Your task to perform on an android device: turn notification dots on Image 0: 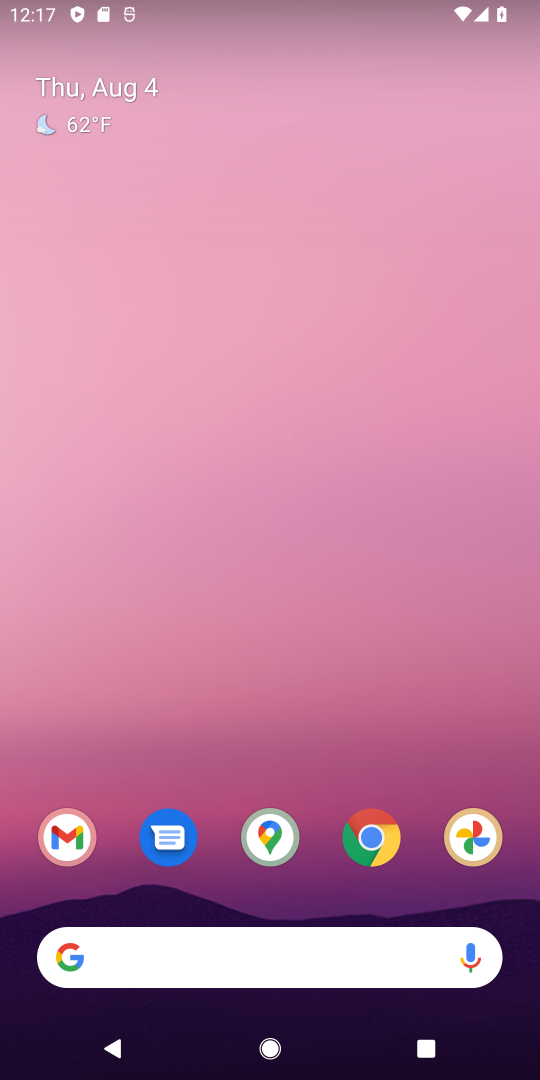
Step 0: drag from (282, 755) to (261, 19)
Your task to perform on an android device: turn notification dots on Image 1: 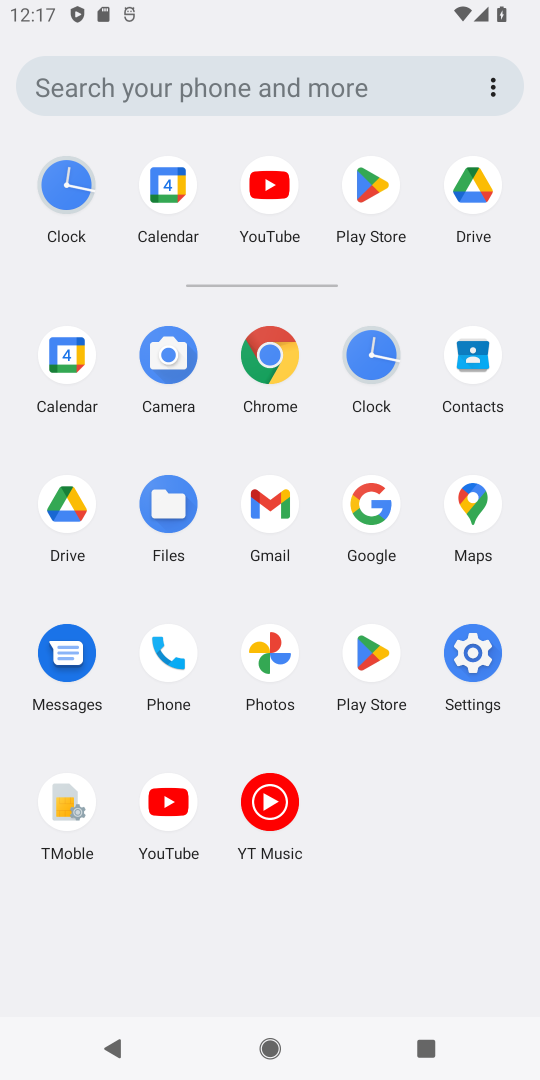
Step 1: click (480, 659)
Your task to perform on an android device: turn notification dots on Image 2: 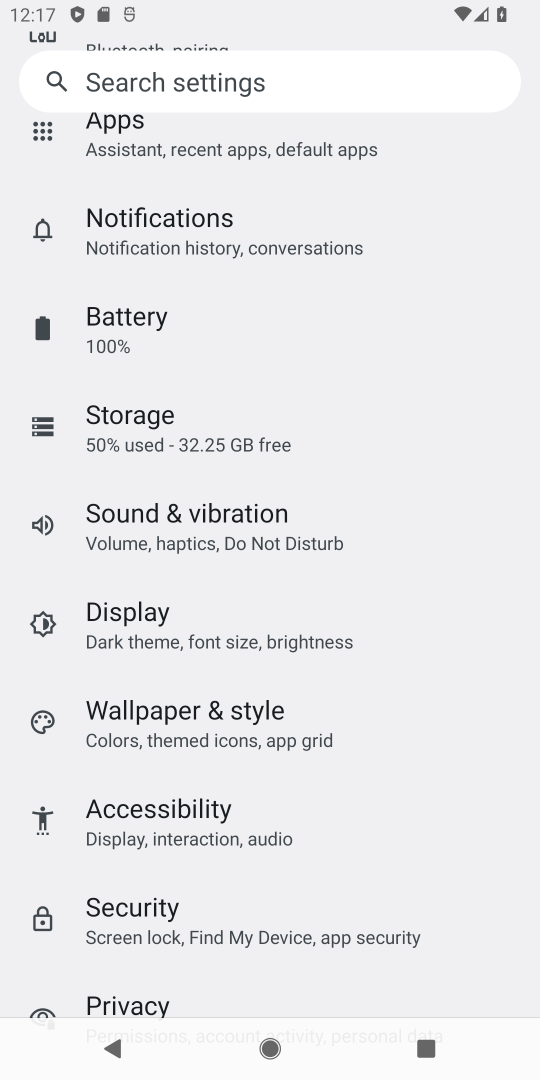
Step 2: click (239, 205)
Your task to perform on an android device: turn notification dots on Image 3: 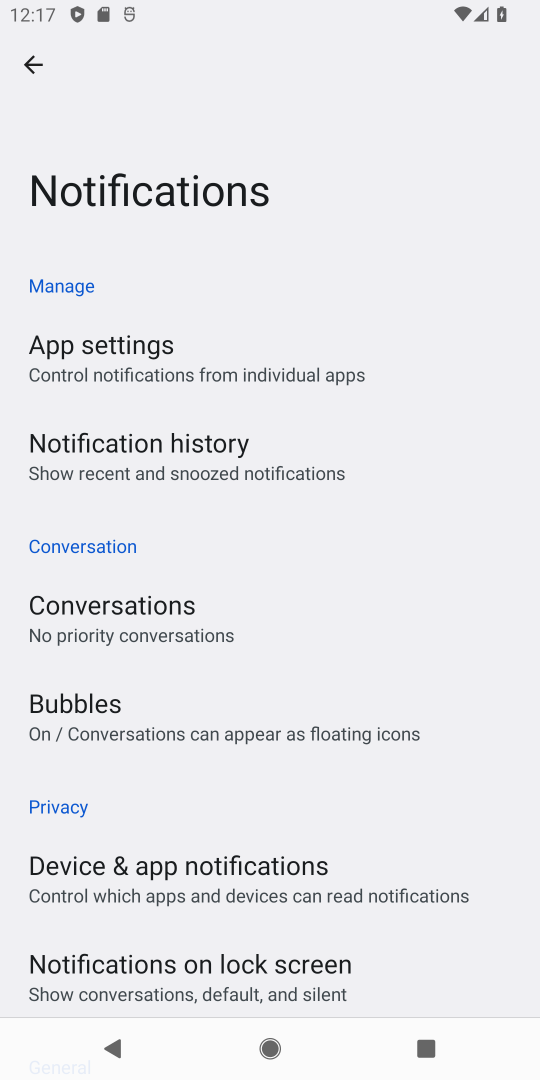
Step 3: drag from (200, 870) to (266, 513)
Your task to perform on an android device: turn notification dots on Image 4: 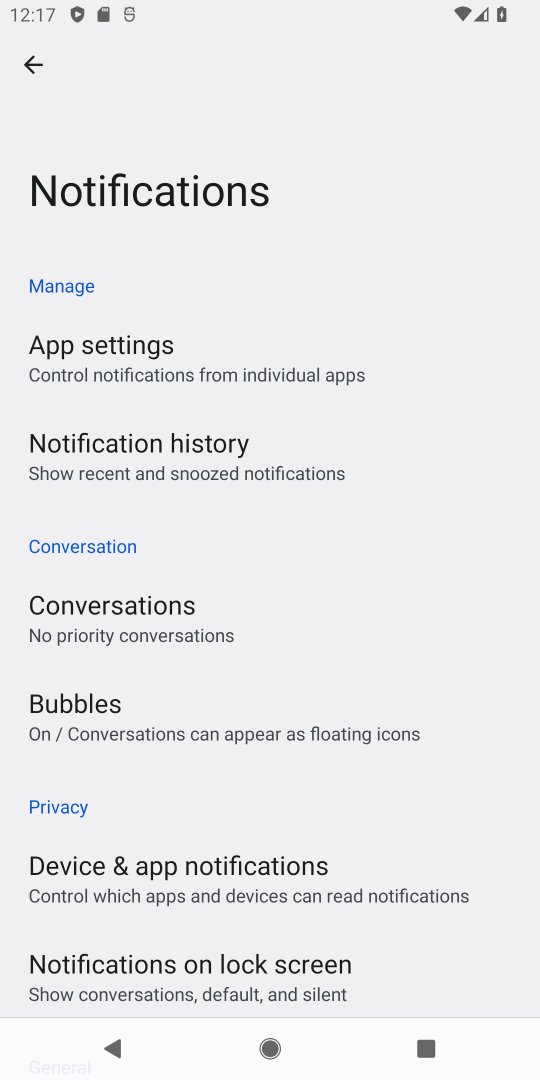
Step 4: drag from (234, 961) to (242, 395)
Your task to perform on an android device: turn notification dots on Image 5: 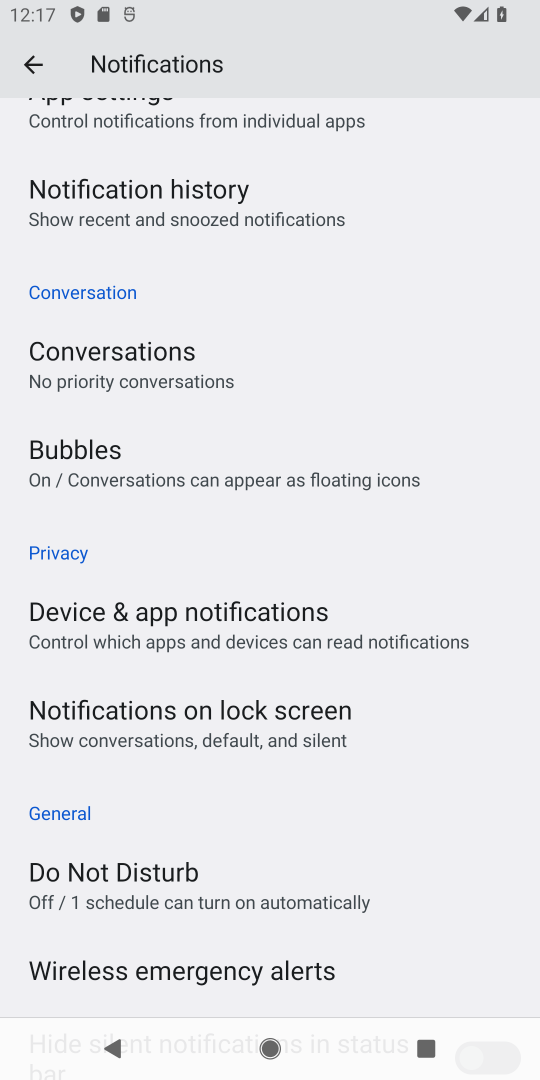
Step 5: drag from (224, 931) to (224, 113)
Your task to perform on an android device: turn notification dots on Image 6: 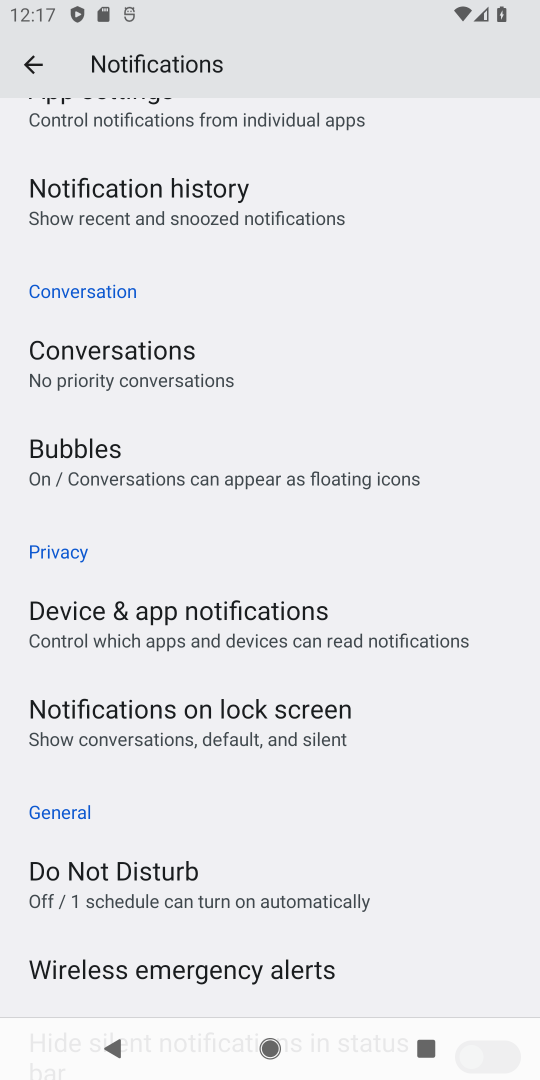
Step 6: drag from (250, 842) to (223, 280)
Your task to perform on an android device: turn notification dots on Image 7: 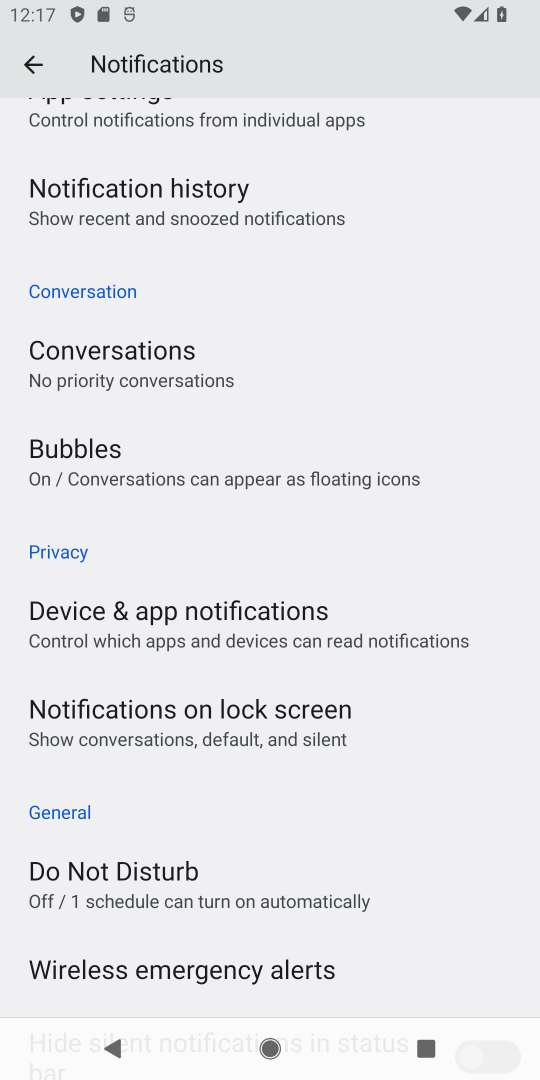
Step 7: drag from (223, 830) to (234, 347)
Your task to perform on an android device: turn notification dots on Image 8: 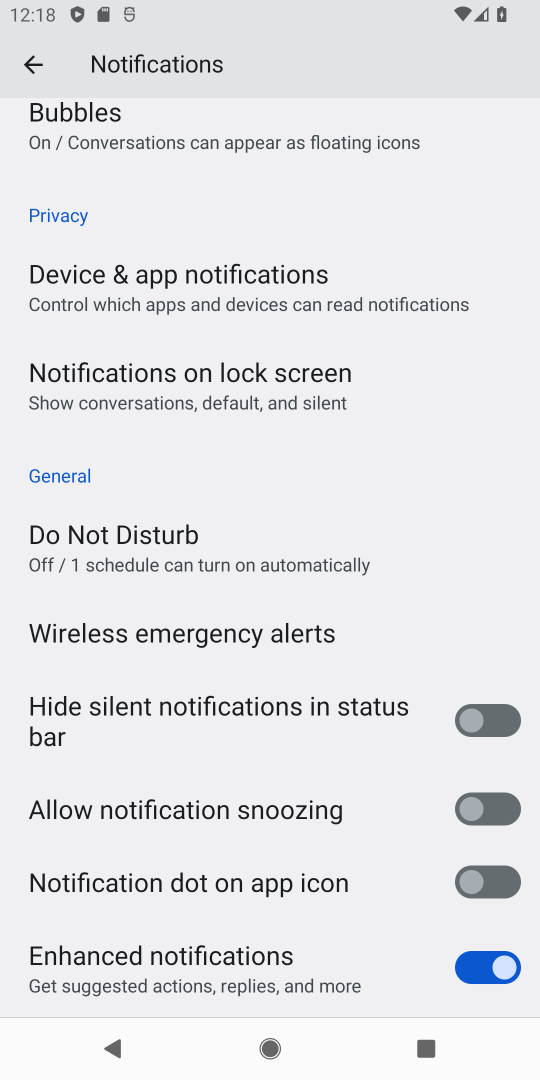
Step 8: click (488, 871)
Your task to perform on an android device: turn notification dots on Image 9: 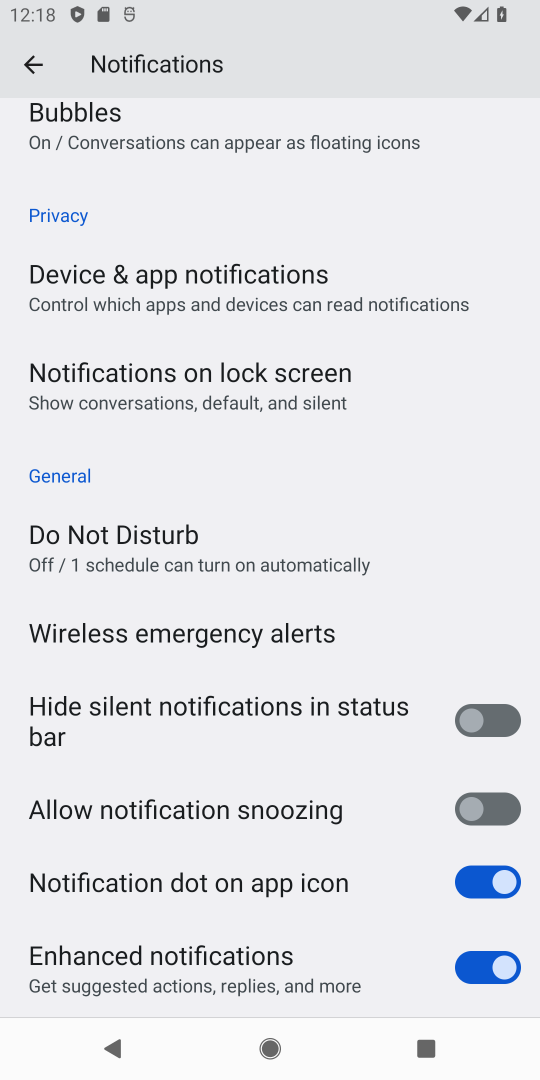
Step 9: task complete